Your task to perform on an android device: turn off notifications in google photos Image 0: 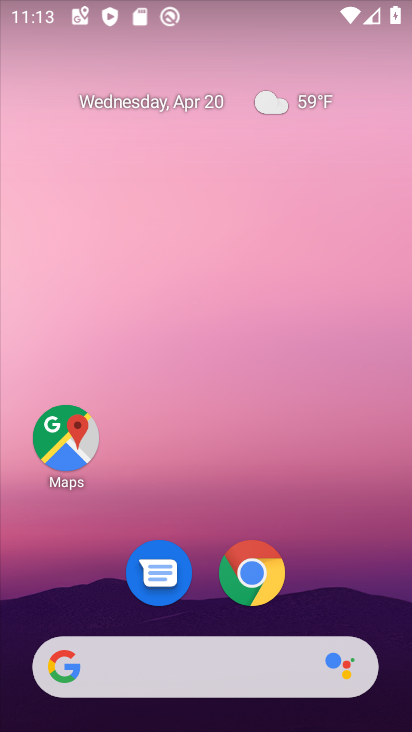
Step 0: drag from (387, 532) to (367, 5)
Your task to perform on an android device: turn off notifications in google photos Image 1: 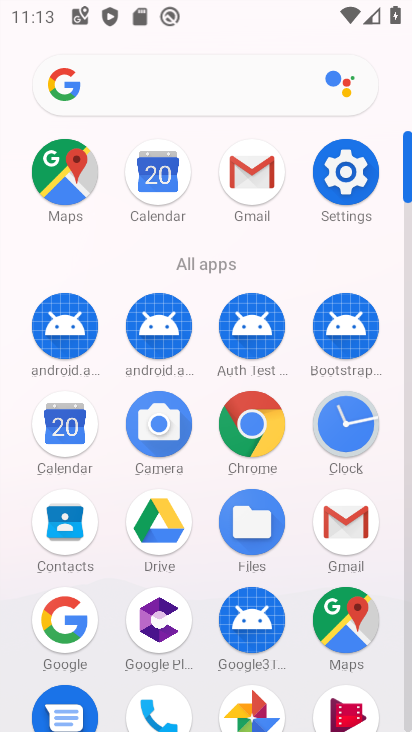
Step 1: click (252, 708)
Your task to perform on an android device: turn off notifications in google photos Image 2: 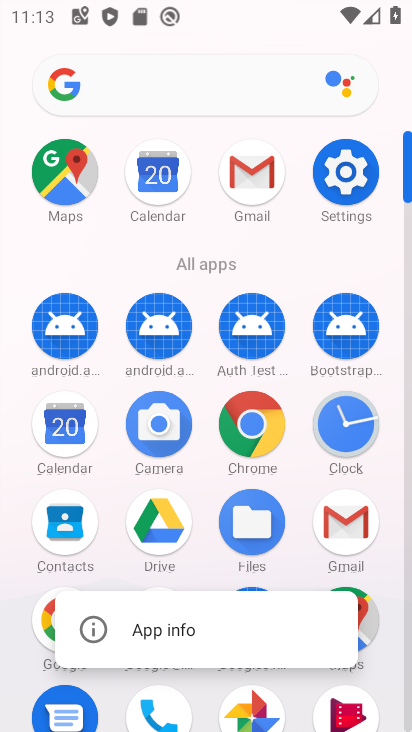
Step 2: click (252, 708)
Your task to perform on an android device: turn off notifications in google photos Image 3: 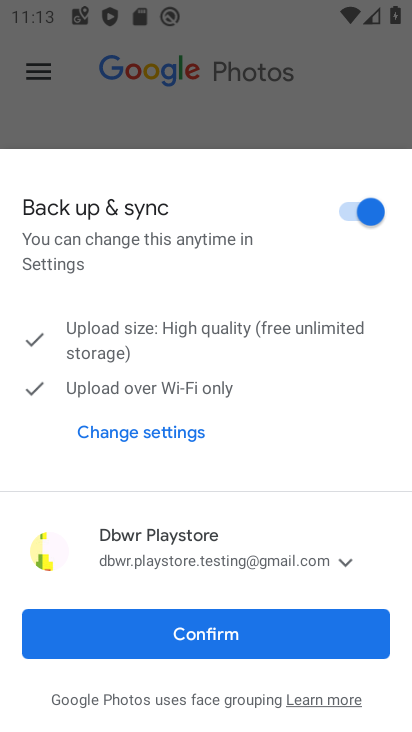
Step 3: click (221, 640)
Your task to perform on an android device: turn off notifications in google photos Image 4: 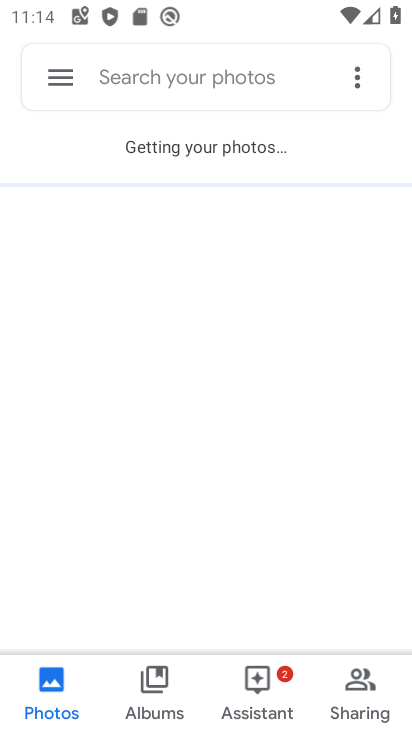
Step 4: click (55, 80)
Your task to perform on an android device: turn off notifications in google photos Image 5: 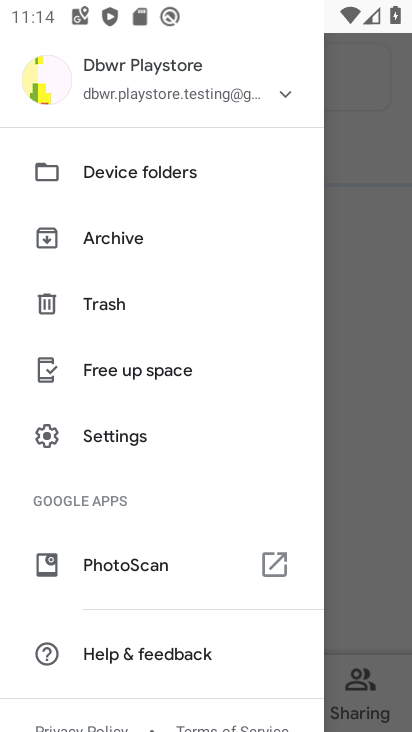
Step 5: click (94, 434)
Your task to perform on an android device: turn off notifications in google photos Image 6: 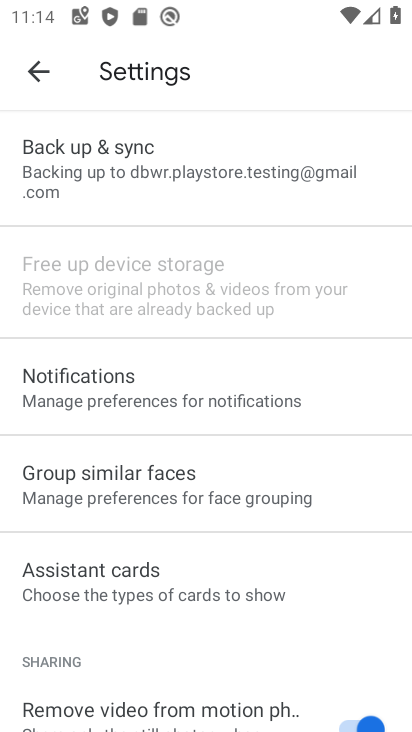
Step 6: click (97, 398)
Your task to perform on an android device: turn off notifications in google photos Image 7: 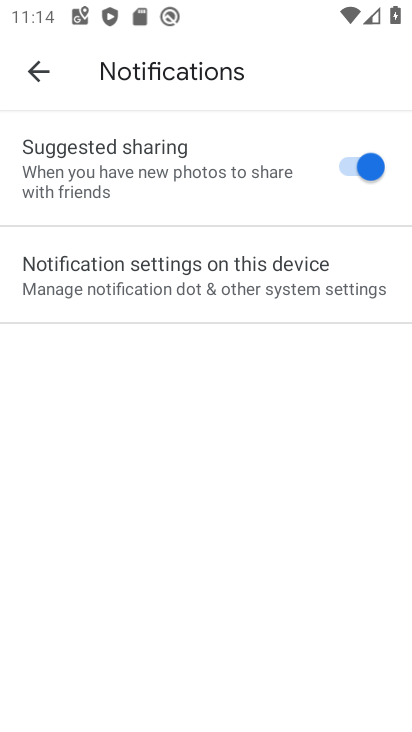
Step 7: click (161, 279)
Your task to perform on an android device: turn off notifications in google photos Image 8: 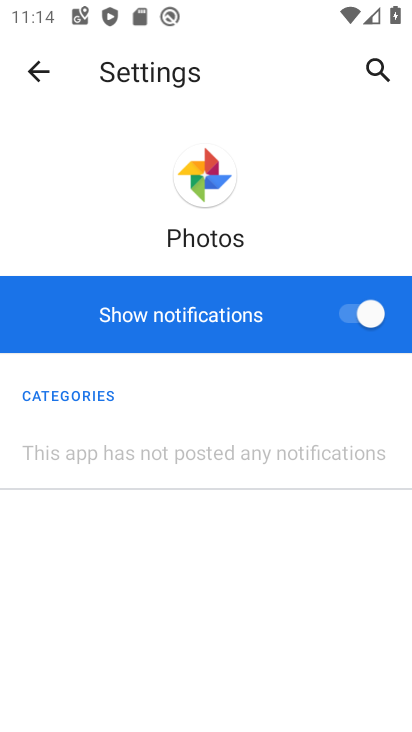
Step 8: click (375, 316)
Your task to perform on an android device: turn off notifications in google photos Image 9: 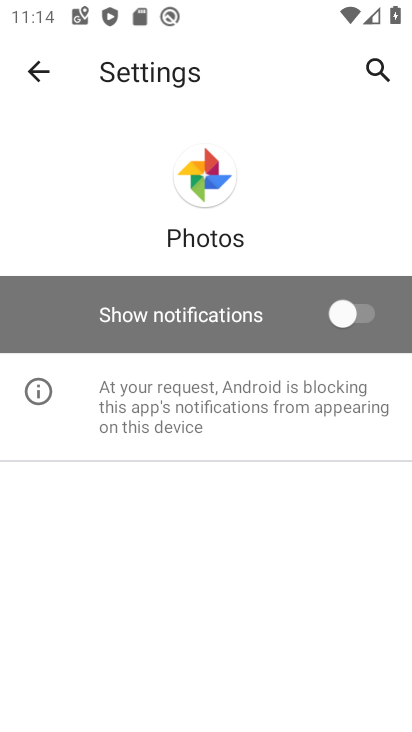
Step 9: task complete